Your task to perform on an android device: turn on showing notifications on the lock screen Image 0: 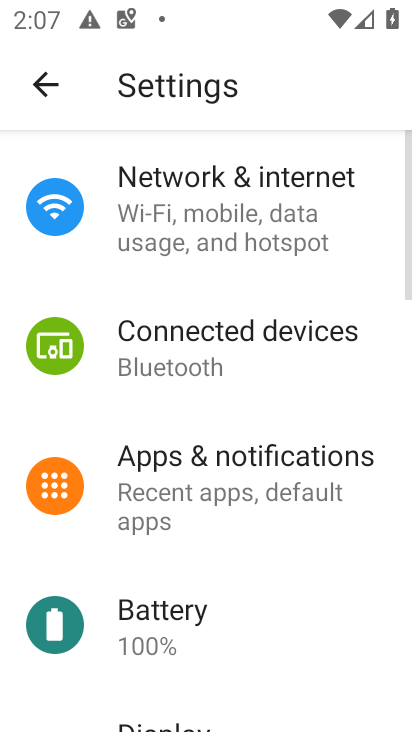
Step 0: press home button
Your task to perform on an android device: turn on showing notifications on the lock screen Image 1: 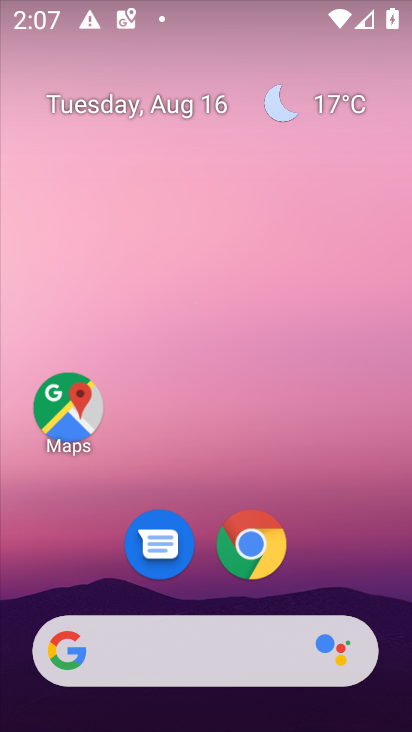
Step 1: drag from (211, 657) to (184, 112)
Your task to perform on an android device: turn on showing notifications on the lock screen Image 2: 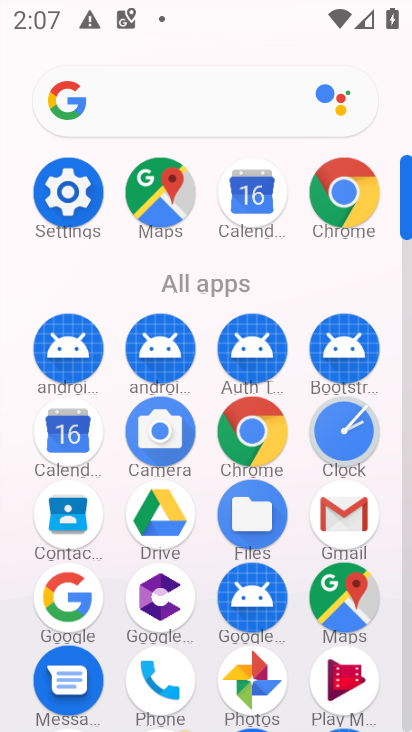
Step 2: click (66, 192)
Your task to perform on an android device: turn on showing notifications on the lock screen Image 3: 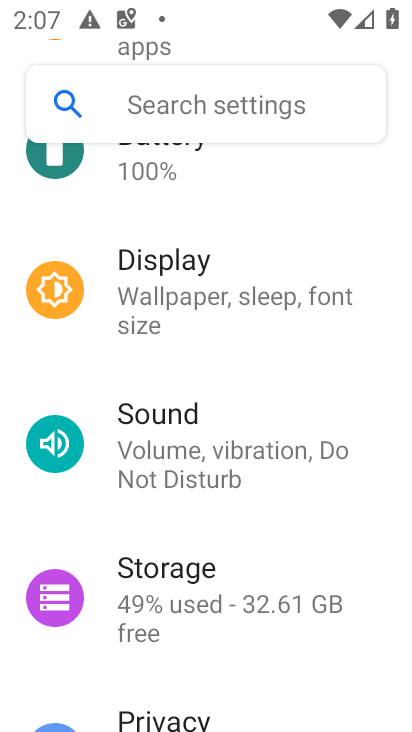
Step 3: drag from (192, 205) to (233, 382)
Your task to perform on an android device: turn on showing notifications on the lock screen Image 4: 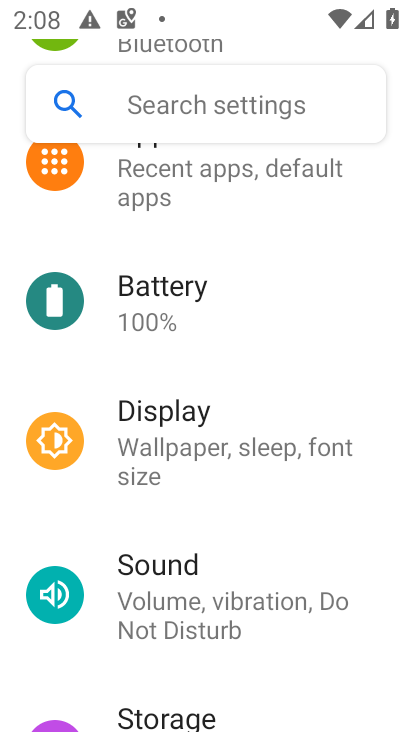
Step 4: drag from (171, 248) to (197, 373)
Your task to perform on an android device: turn on showing notifications on the lock screen Image 5: 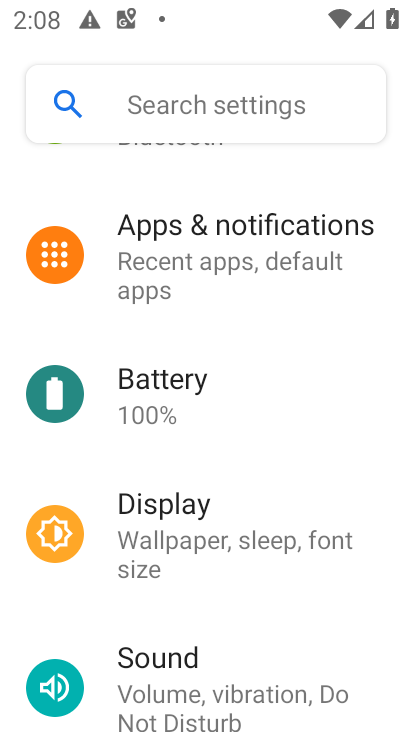
Step 5: click (185, 228)
Your task to perform on an android device: turn on showing notifications on the lock screen Image 6: 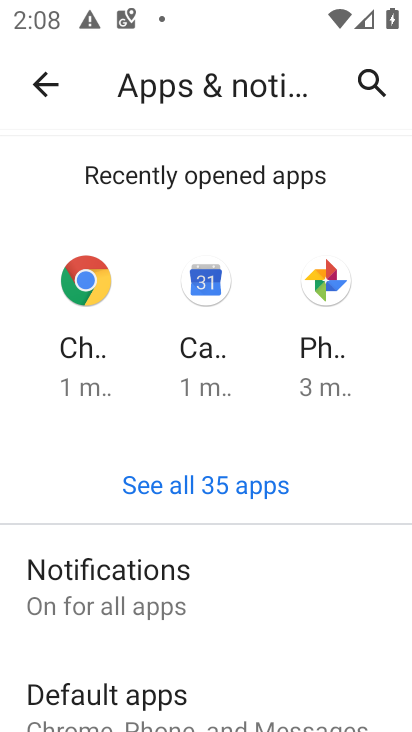
Step 6: click (166, 580)
Your task to perform on an android device: turn on showing notifications on the lock screen Image 7: 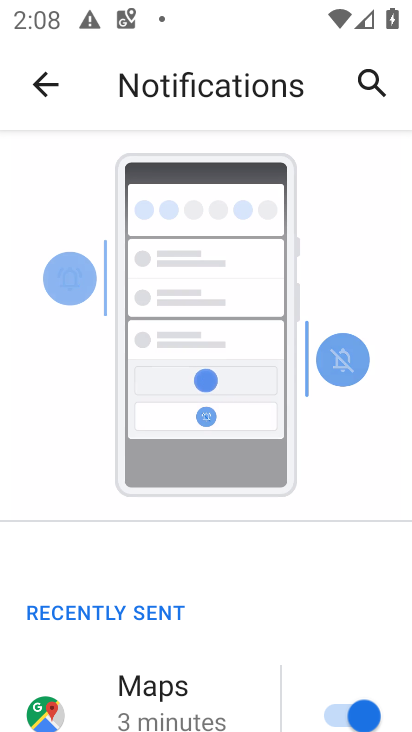
Step 7: drag from (181, 656) to (252, 435)
Your task to perform on an android device: turn on showing notifications on the lock screen Image 8: 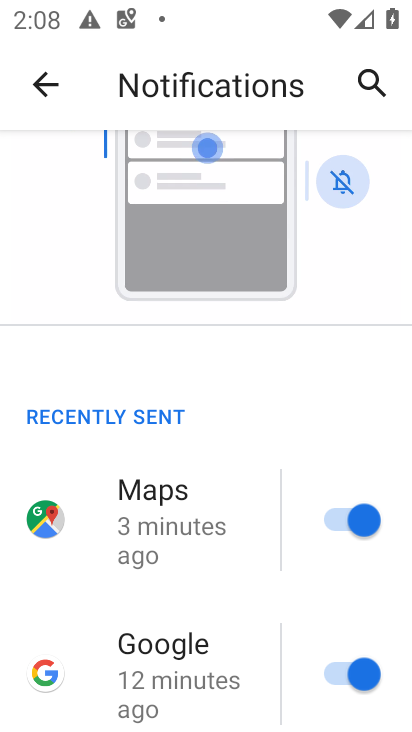
Step 8: drag from (138, 599) to (250, 444)
Your task to perform on an android device: turn on showing notifications on the lock screen Image 9: 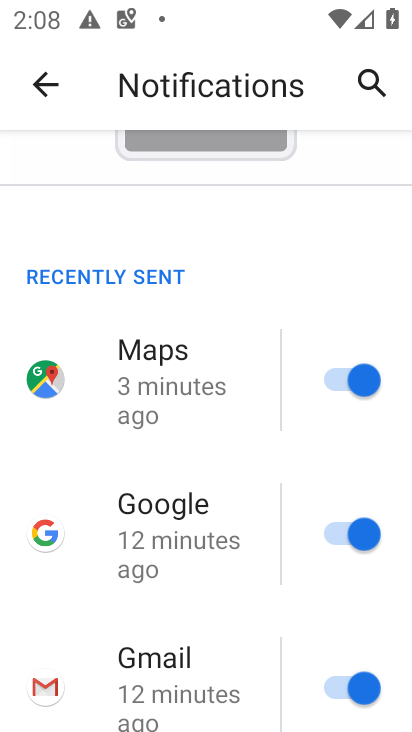
Step 9: drag from (163, 633) to (203, 498)
Your task to perform on an android device: turn on showing notifications on the lock screen Image 10: 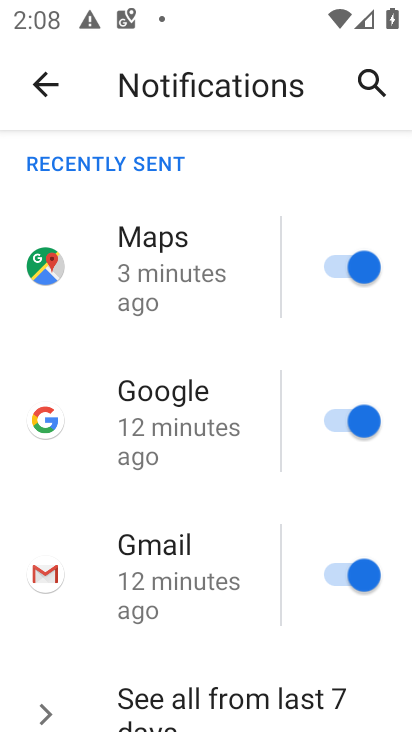
Step 10: drag from (147, 641) to (173, 448)
Your task to perform on an android device: turn on showing notifications on the lock screen Image 11: 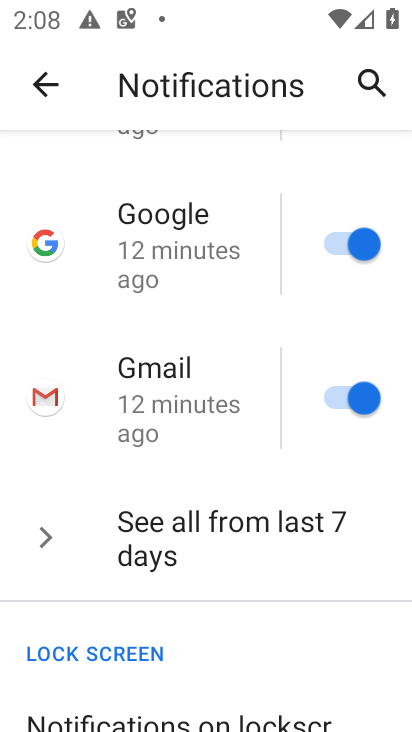
Step 11: drag from (138, 630) to (170, 461)
Your task to perform on an android device: turn on showing notifications on the lock screen Image 12: 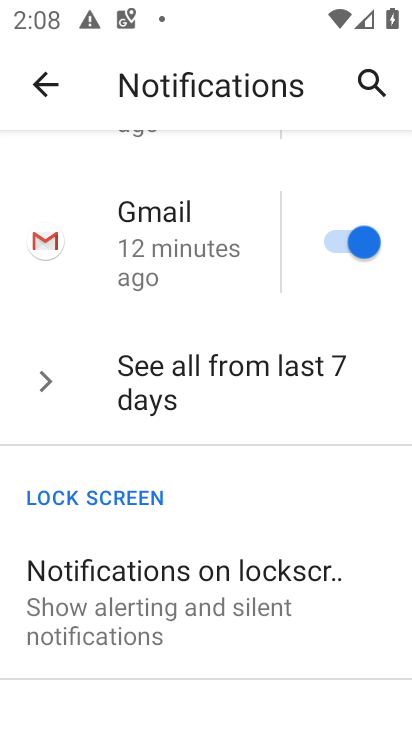
Step 12: drag from (186, 523) to (230, 403)
Your task to perform on an android device: turn on showing notifications on the lock screen Image 13: 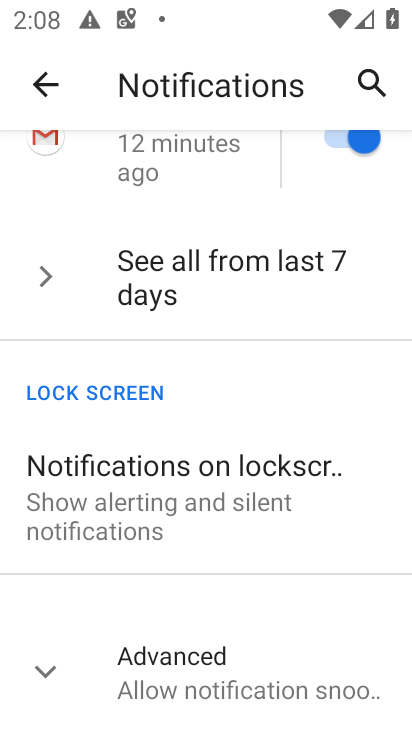
Step 13: click (186, 465)
Your task to perform on an android device: turn on showing notifications on the lock screen Image 14: 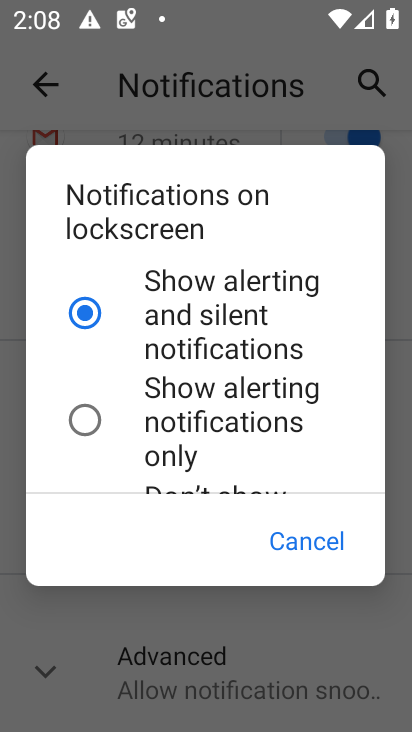
Step 14: click (83, 312)
Your task to perform on an android device: turn on showing notifications on the lock screen Image 15: 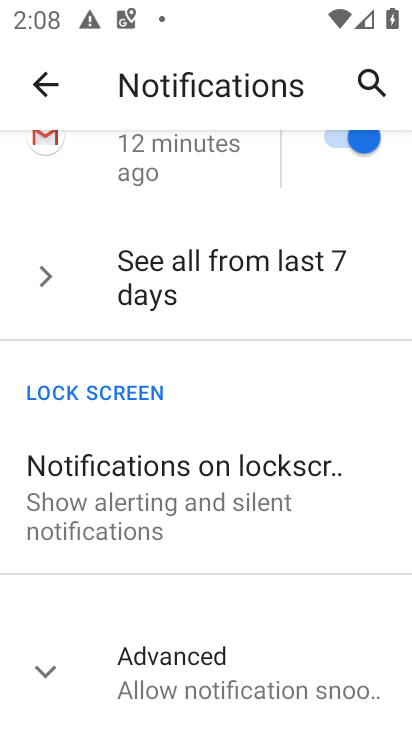
Step 15: task complete